Your task to perform on an android device: What's the weather today? Image 0: 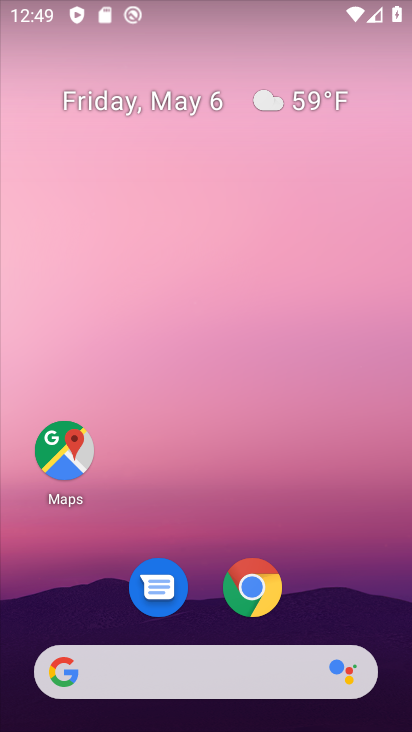
Step 0: drag from (193, 692) to (295, 194)
Your task to perform on an android device: What's the weather today? Image 1: 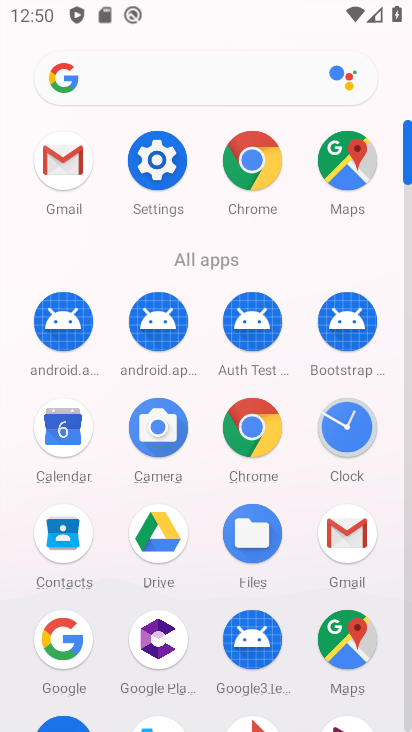
Step 1: click (48, 649)
Your task to perform on an android device: What's the weather today? Image 2: 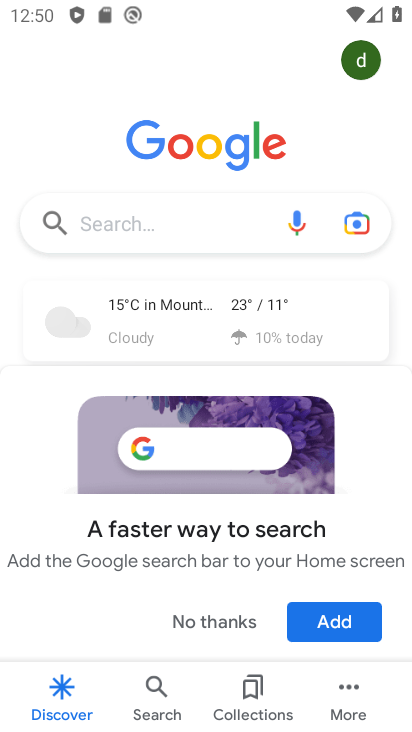
Step 2: click (168, 233)
Your task to perform on an android device: What's the weather today? Image 3: 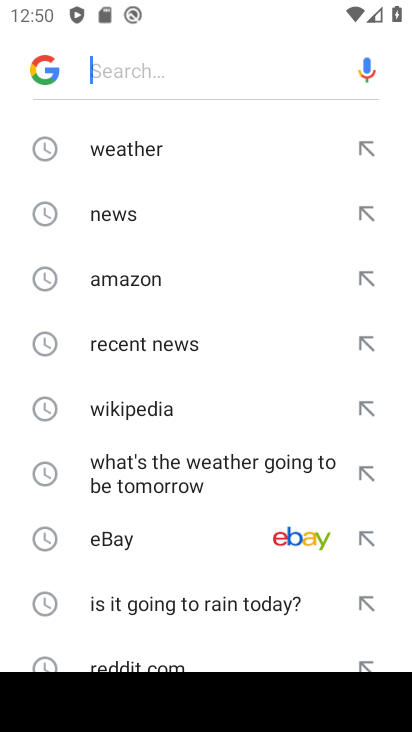
Step 3: click (197, 153)
Your task to perform on an android device: What's the weather today? Image 4: 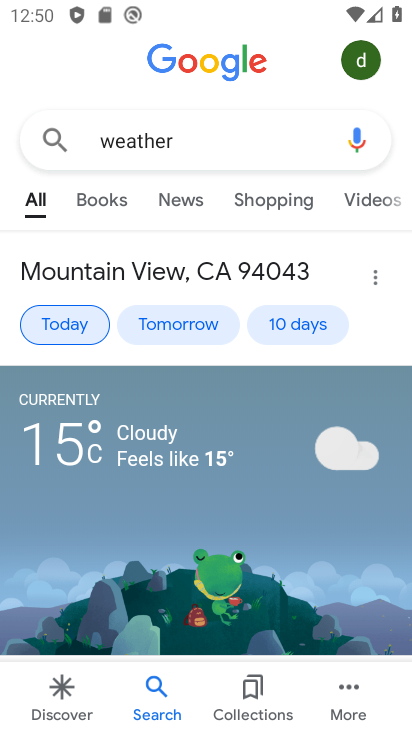
Step 4: task complete